Your task to perform on an android device: Go to sound settings Image 0: 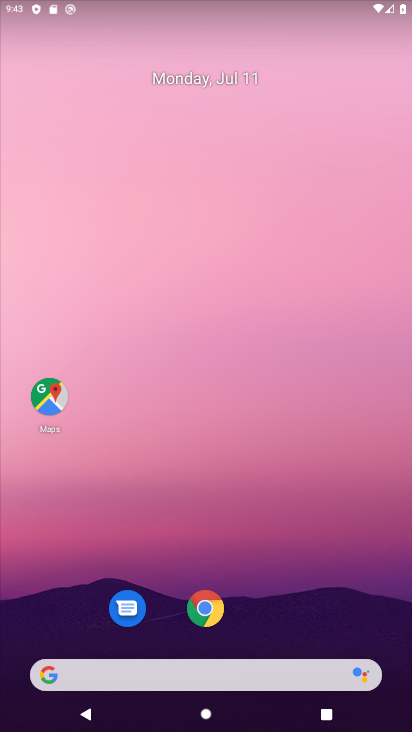
Step 0: drag from (45, 717) to (282, 15)
Your task to perform on an android device: Go to sound settings Image 1: 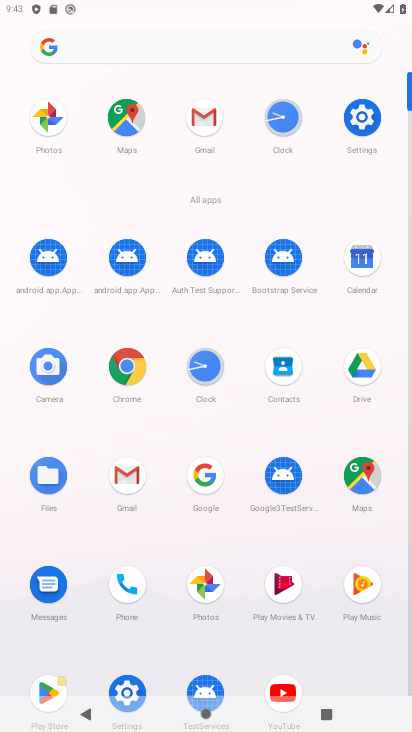
Step 1: click (131, 690)
Your task to perform on an android device: Go to sound settings Image 2: 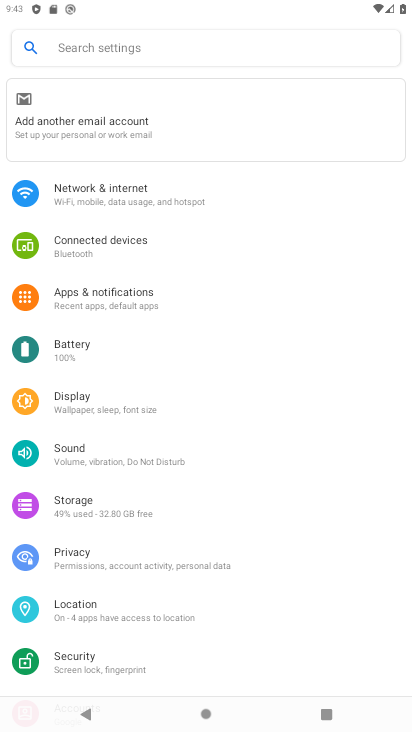
Step 2: click (48, 457)
Your task to perform on an android device: Go to sound settings Image 3: 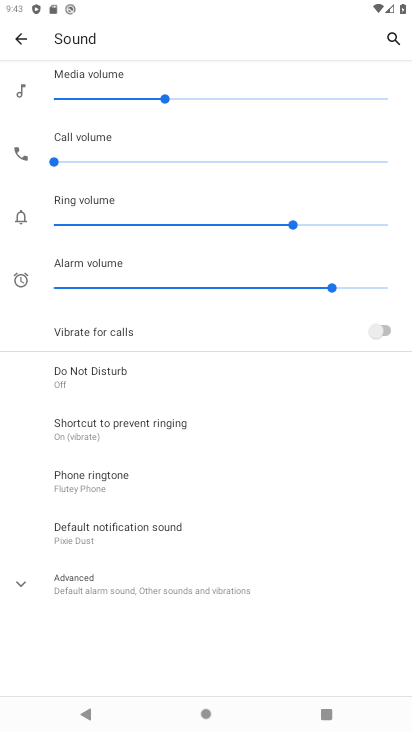
Step 3: task complete